Your task to perform on an android device: turn off translation in the chrome app Image 0: 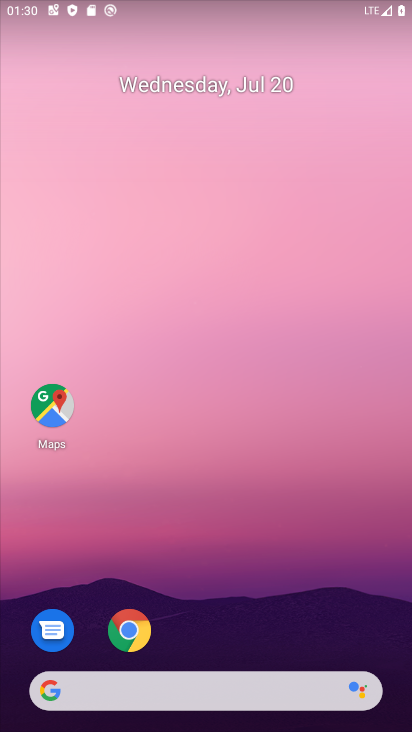
Step 0: click (132, 626)
Your task to perform on an android device: turn off translation in the chrome app Image 1: 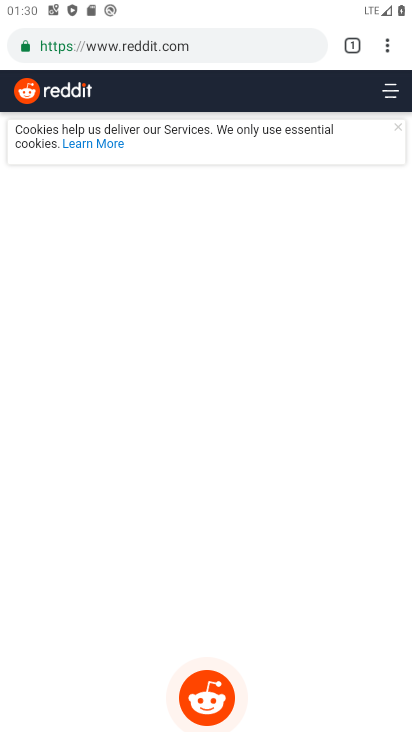
Step 1: drag from (390, 43) to (234, 596)
Your task to perform on an android device: turn off translation in the chrome app Image 2: 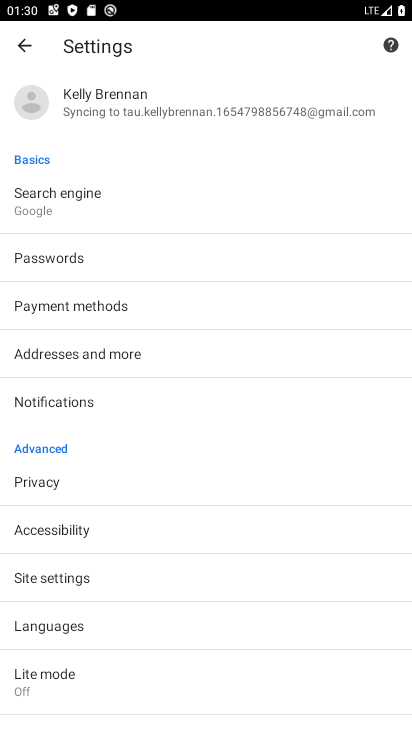
Step 2: drag from (220, 602) to (262, 180)
Your task to perform on an android device: turn off translation in the chrome app Image 3: 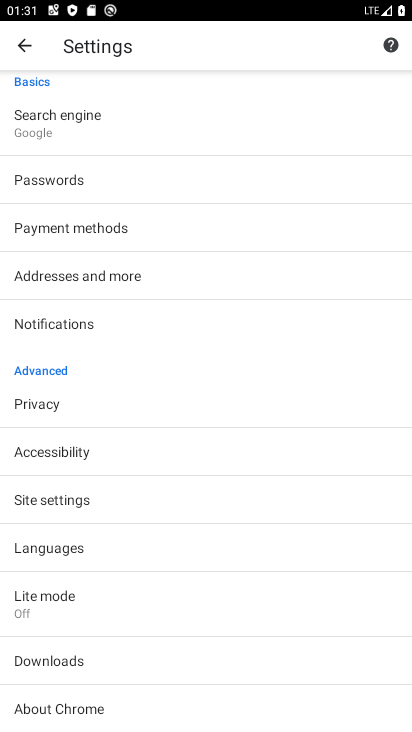
Step 3: click (97, 557)
Your task to perform on an android device: turn off translation in the chrome app Image 4: 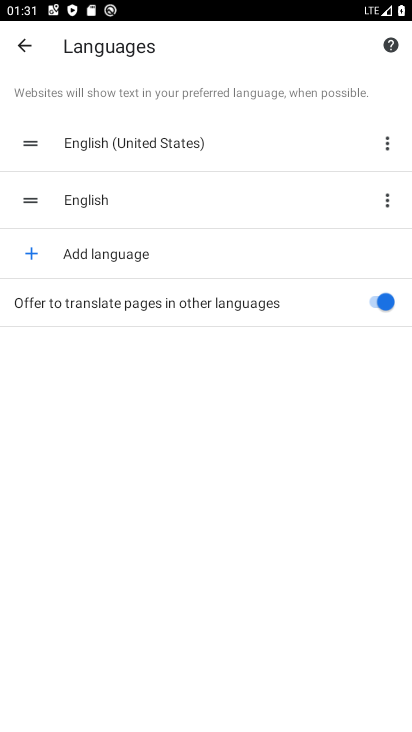
Step 4: click (369, 303)
Your task to perform on an android device: turn off translation in the chrome app Image 5: 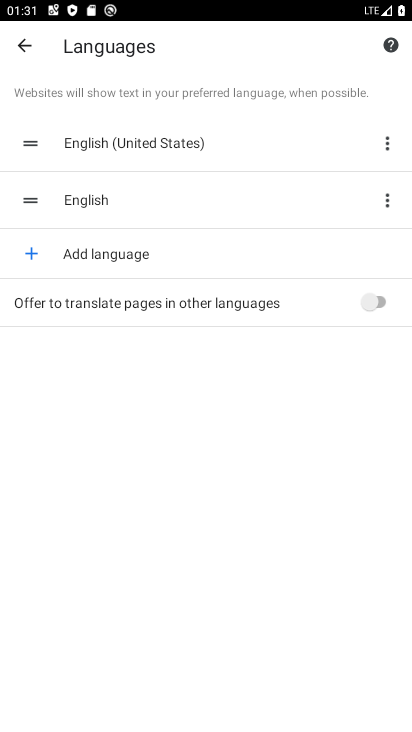
Step 5: task complete